Your task to perform on an android device: Go to CNN.com Image 0: 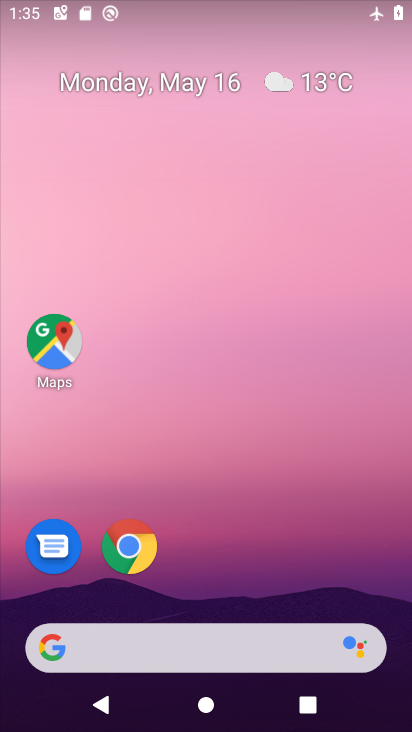
Step 0: click (120, 553)
Your task to perform on an android device: Go to CNN.com Image 1: 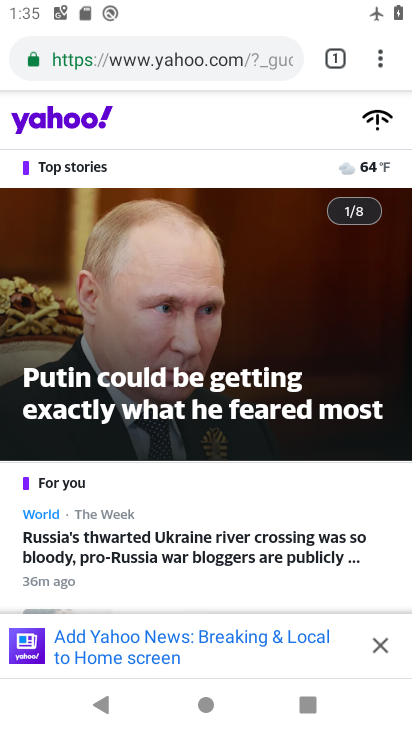
Step 1: click (379, 62)
Your task to perform on an android device: Go to CNN.com Image 2: 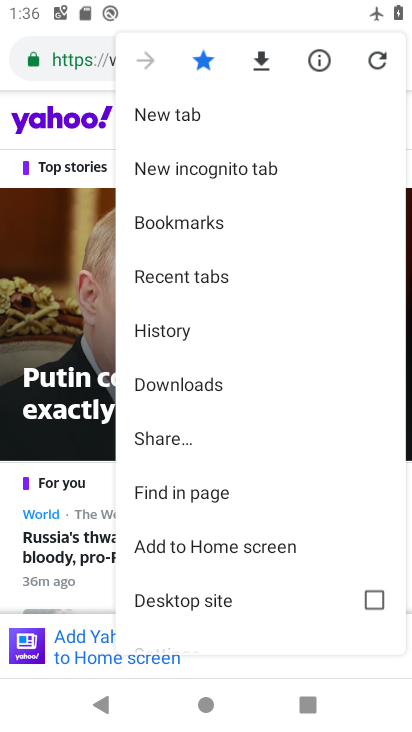
Step 2: click (181, 117)
Your task to perform on an android device: Go to CNN.com Image 3: 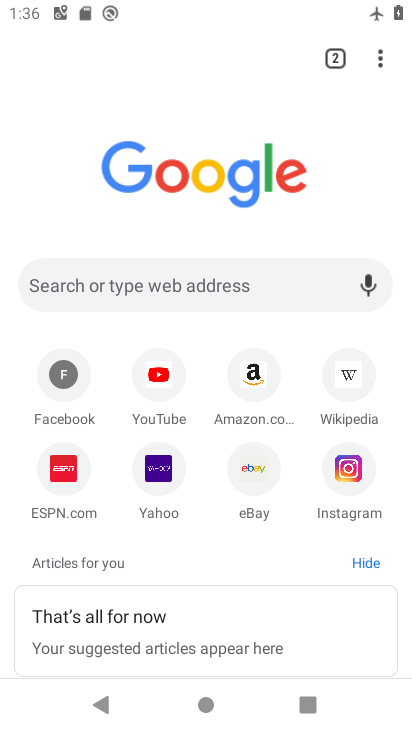
Step 3: click (157, 284)
Your task to perform on an android device: Go to CNN.com Image 4: 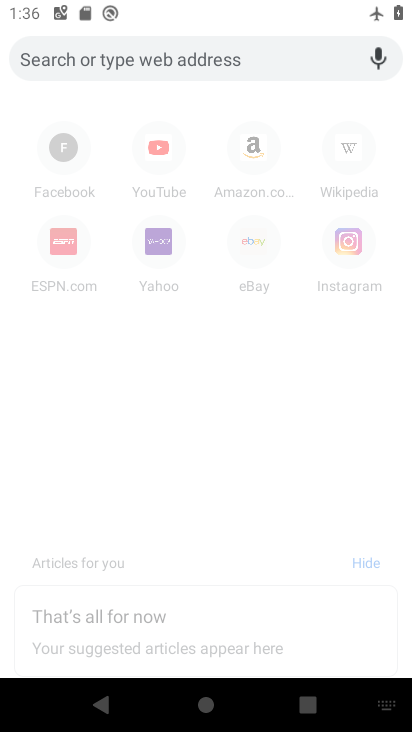
Step 4: type "CNN.com"
Your task to perform on an android device: Go to CNN.com Image 5: 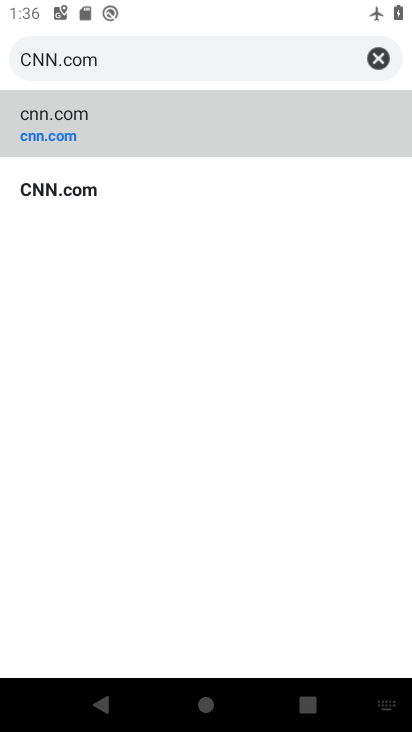
Step 5: click (75, 117)
Your task to perform on an android device: Go to CNN.com Image 6: 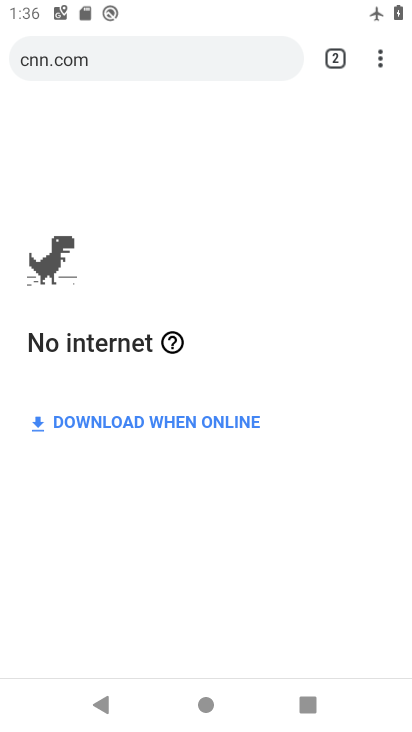
Step 6: press back button
Your task to perform on an android device: Go to CNN.com Image 7: 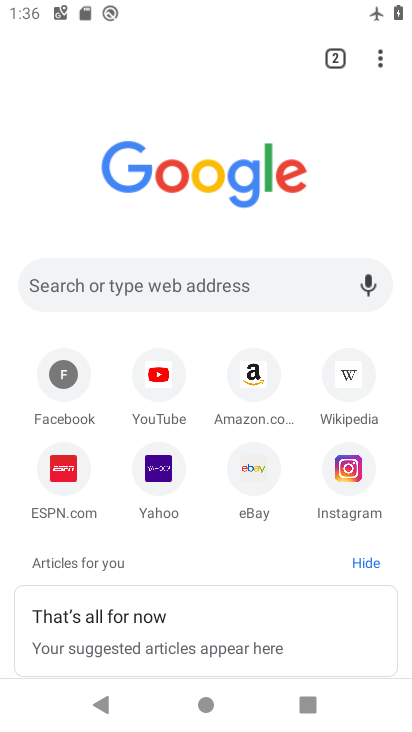
Step 7: press back button
Your task to perform on an android device: Go to CNN.com Image 8: 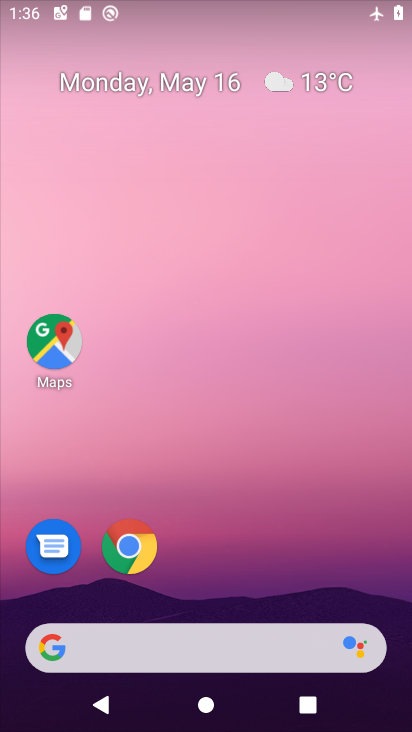
Step 8: drag from (225, 714) to (228, 142)
Your task to perform on an android device: Go to CNN.com Image 9: 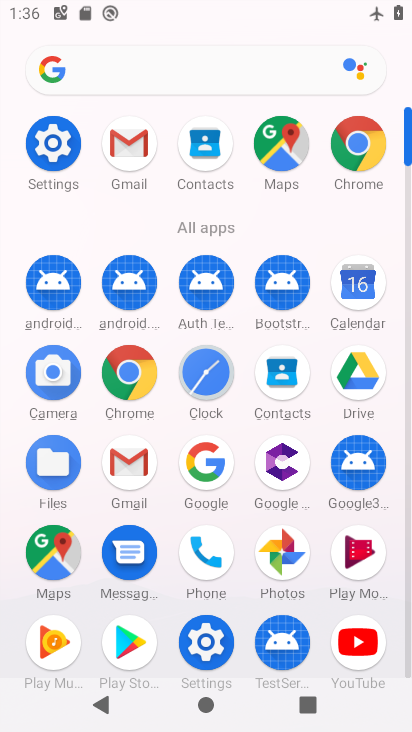
Step 9: click (54, 139)
Your task to perform on an android device: Go to CNN.com Image 10: 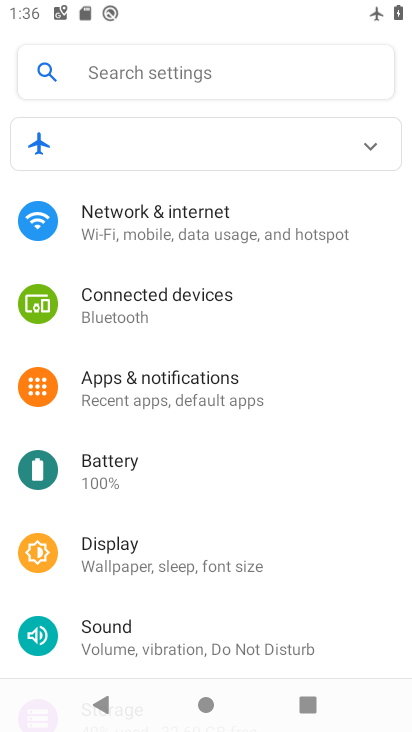
Step 10: click (146, 227)
Your task to perform on an android device: Go to CNN.com Image 11: 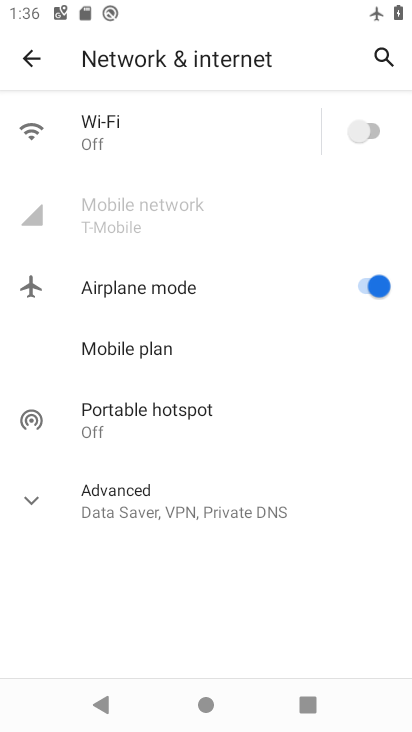
Step 11: click (366, 283)
Your task to perform on an android device: Go to CNN.com Image 12: 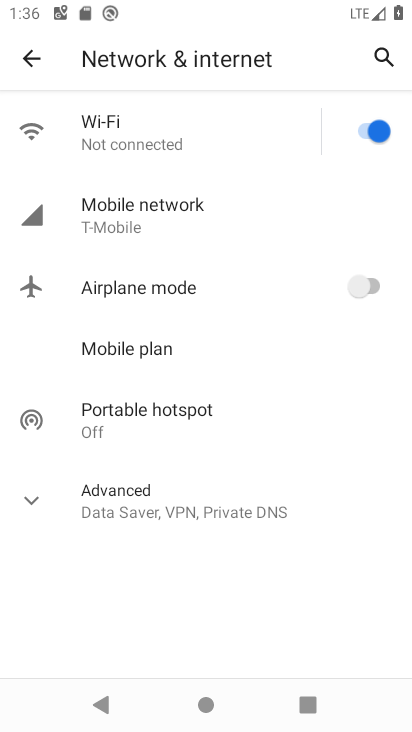
Step 12: press back button
Your task to perform on an android device: Go to CNN.com Image 13: 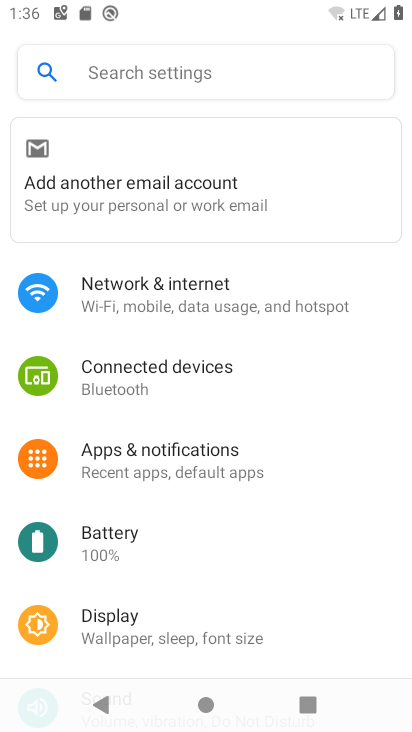
Step 13: press home button
Your task to perform on an android device: Go to CNN.com Image 14: 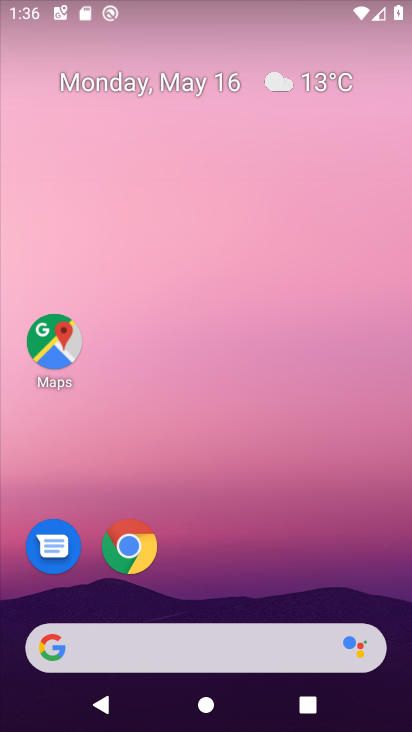
Step 14: click (128, 565)
Your task to perform on an android device: Go to CNN.com Image 15: 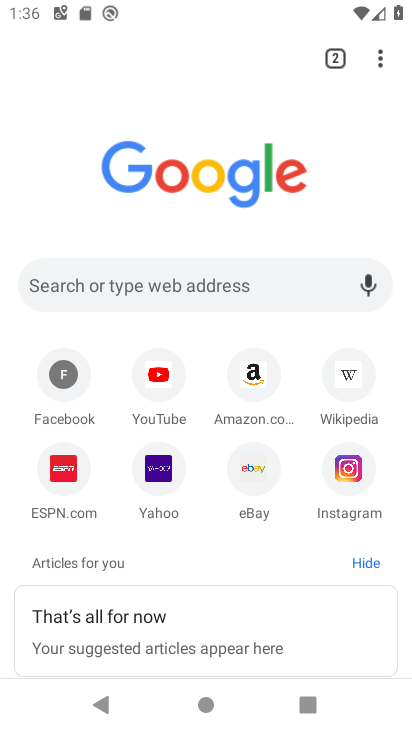
Step 15: click (211, 277)
Your task to perform on an android device: Go to CNN.com Image 16: 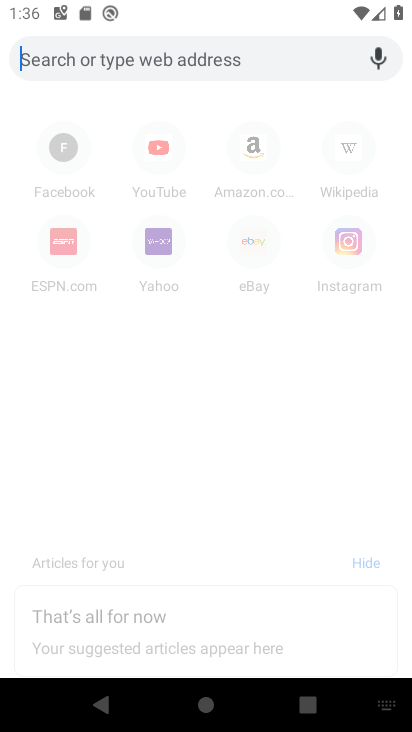
Step 16: type "CNN.com"
Your task to perform on an android device: Go to CNN.com Image 17: 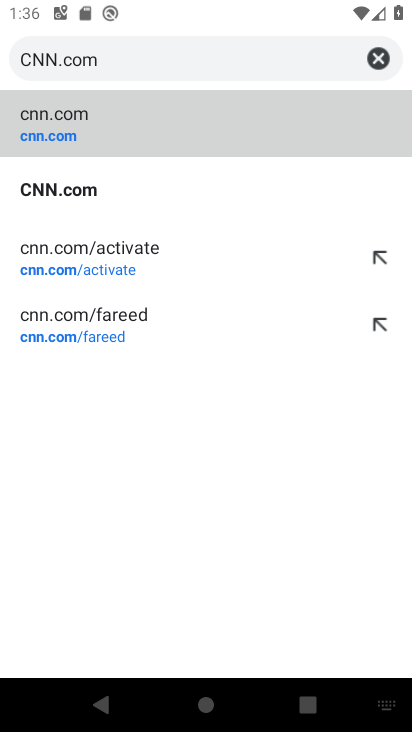
Step 17: click (82, 115)
Your task to perform on an android device: Go to CNN.com Image 18: 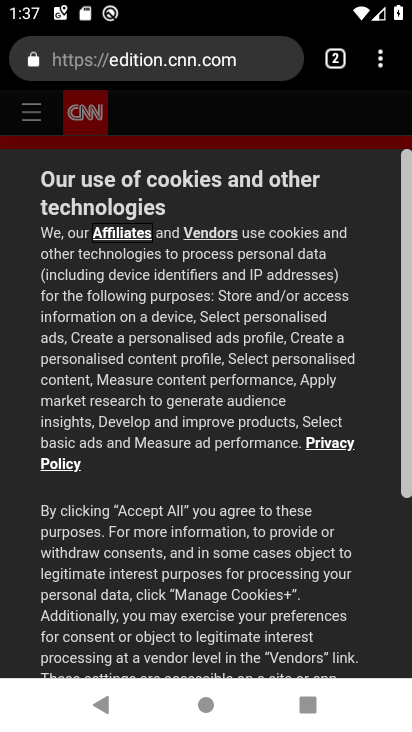
Step 18: task complete